Your task to perform on an android device: move an email to a new category in the gmail app Image 0: 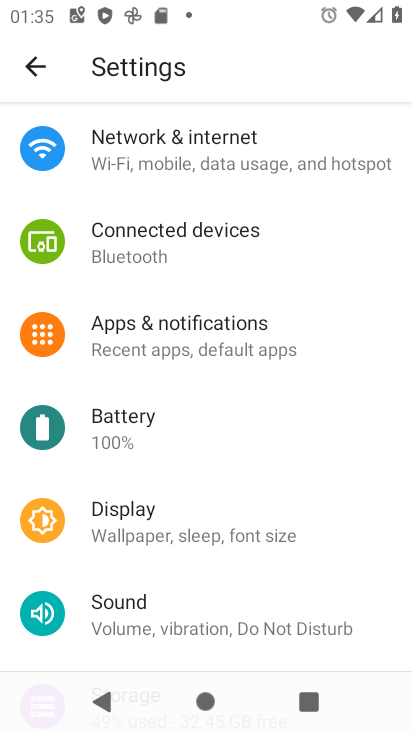
Step 0: press home button
Your task to perform on an android device: move an email to a new category in the gmail app Image 1: 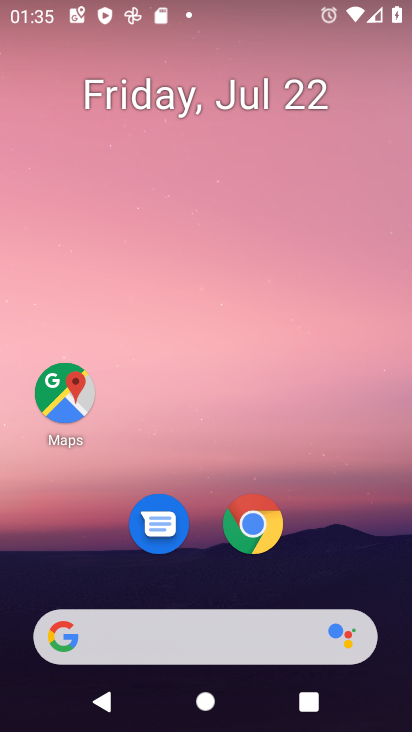
Step 1: drag from (216, 648) to (257, 58)
Your task to perform on an android device: move an email to a new category in the gmail app Image 2: 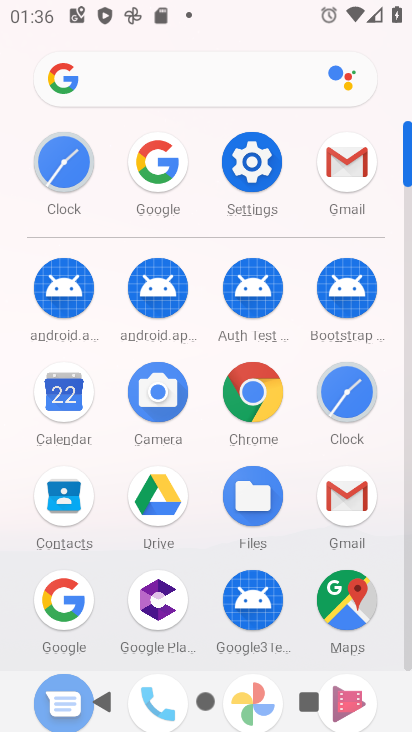
Step 2: click (355, 172)
Your task to perform on an android device: move an email to a new category in the gmail app Image 3: 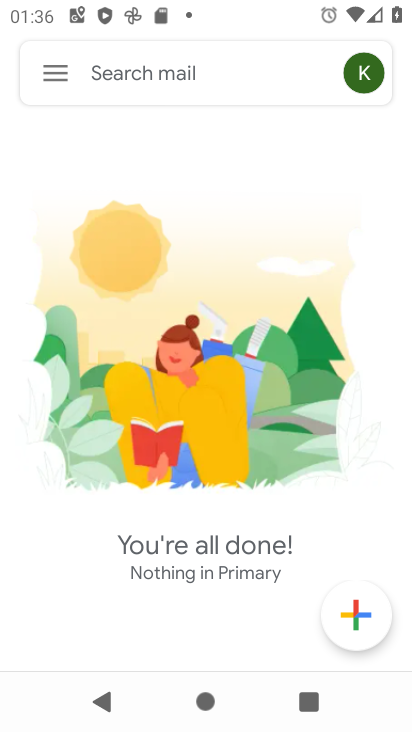
Step 3: task complete